Your task to perform on an android device: Search for Italian restaurants on Maps Image 0: 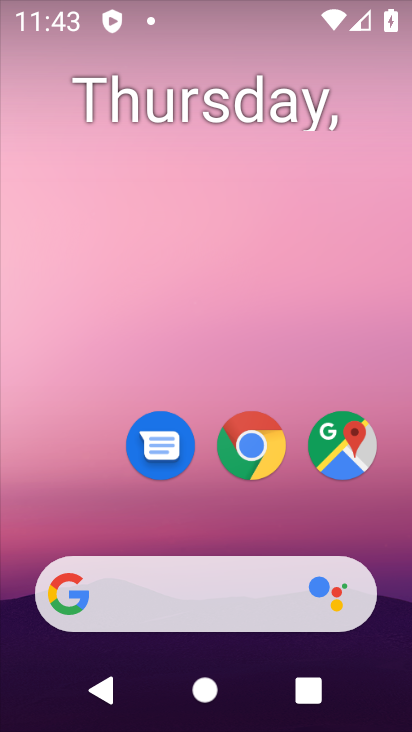
Step 0: drag from (248, 657) to (175, 25)
Your task to perform on an android device: Search for Italian restaurants on Maps Image 1: 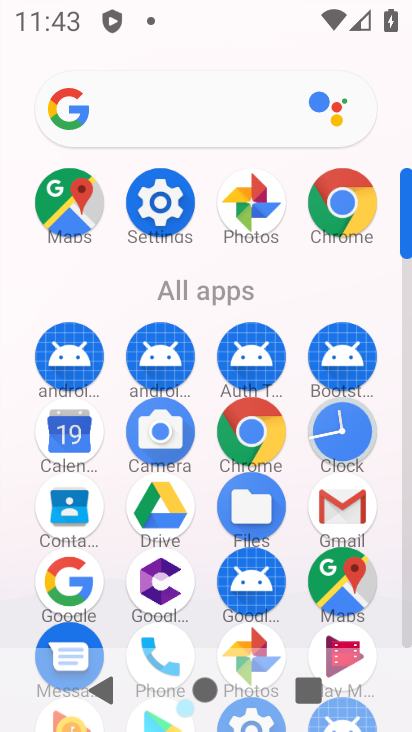
Step 1: click (339, 583)
Your task to perform on an android device: Search for Italian restaurants on Maps Image 2: 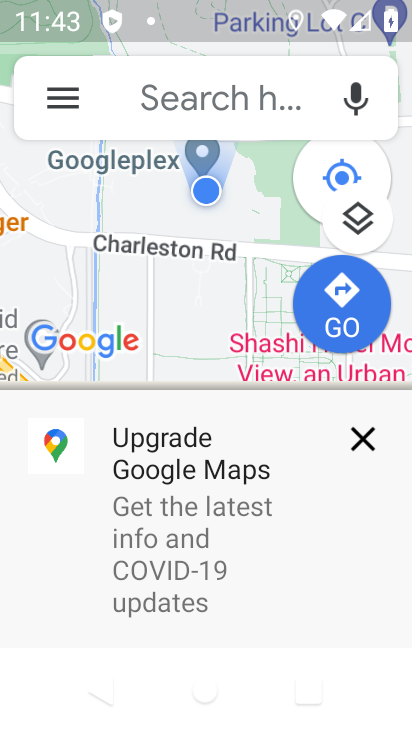
Step 2: click (144, 96)
Your task to perform on an android device: Search for Italian restaurants on Maps Image 3: 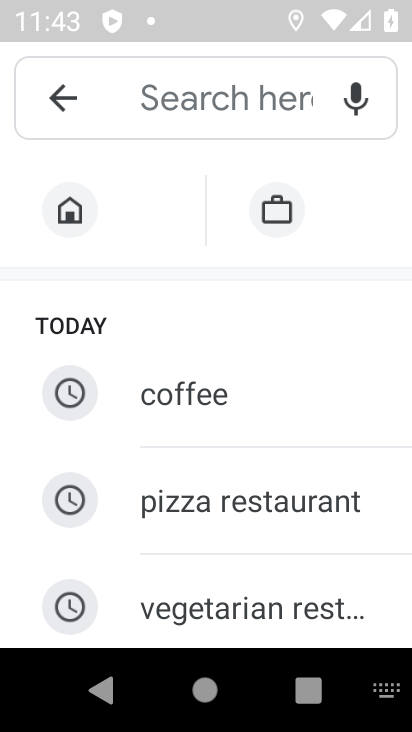
Step 3: type "italian restaurants"
Your task to perform on an android device: Search for Italian restaurants on Maps Image 4: 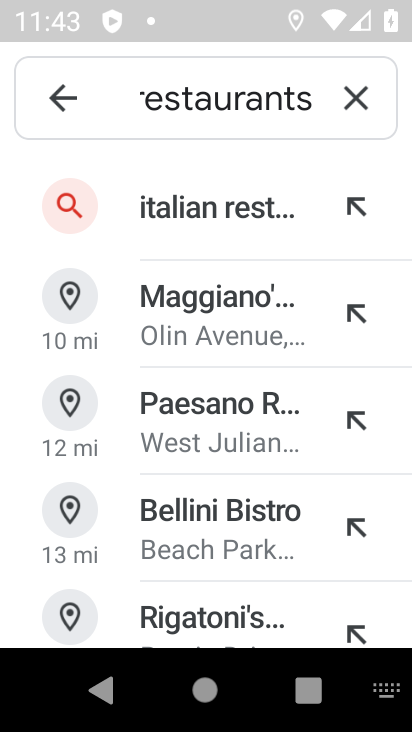
Step 4: click (219, 203)
Your task to perform on an android device: Search for Italian restaurants on Maps Image 5: 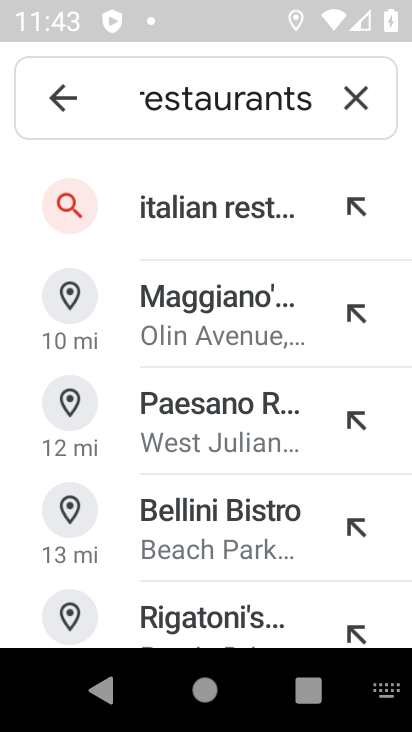
Step 5: click (219, 203)
Your task to perform on an android device: Search for Italian restaurants on Maps Image 6: 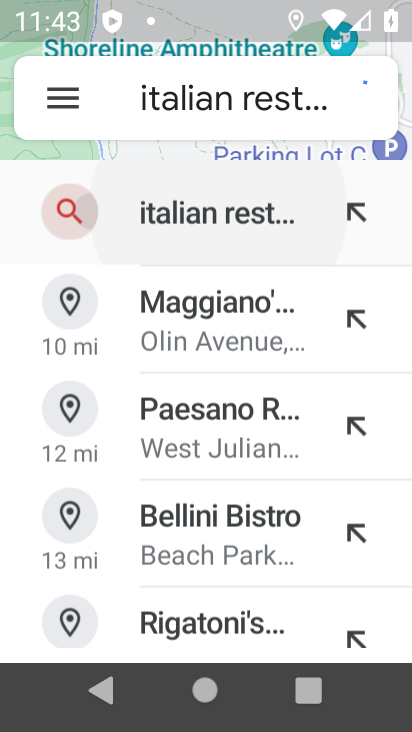
Step 6: click (219, 203)
Your task to perform on an android device: Search for Italian restaurants on Maps Image 7: 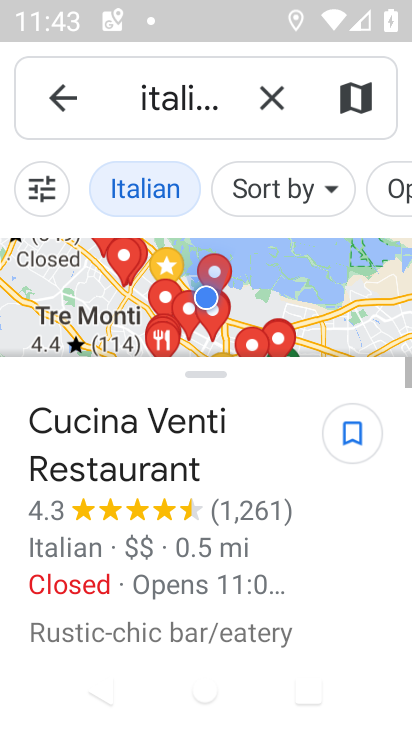
Step 7: task complete